Your task to perform on an android device: toggle data saver in the chrome app Image 0: 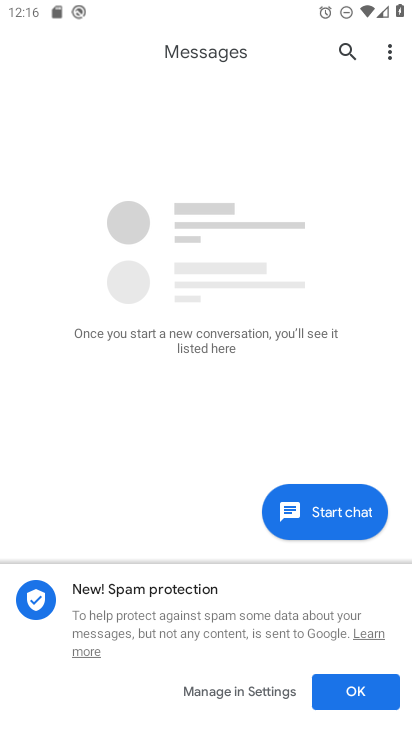
Step 0: press home button
Your task to perform on an android device: toggle data saver in the chrome app Image 1: 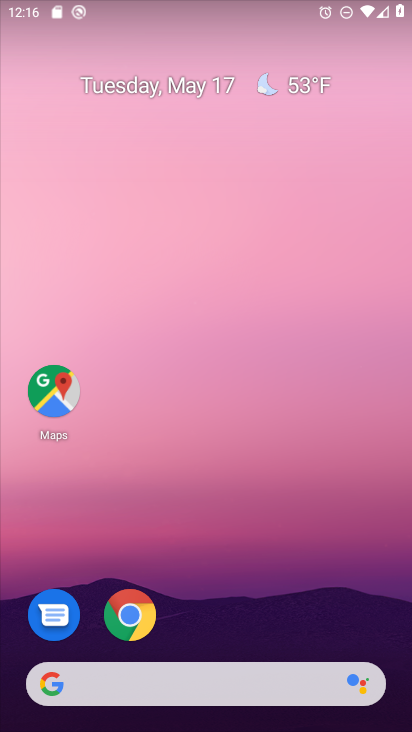
Step 1: click (134, 597)
Your task to perform on an android device: toggle data saver in the chrome app Image 2: 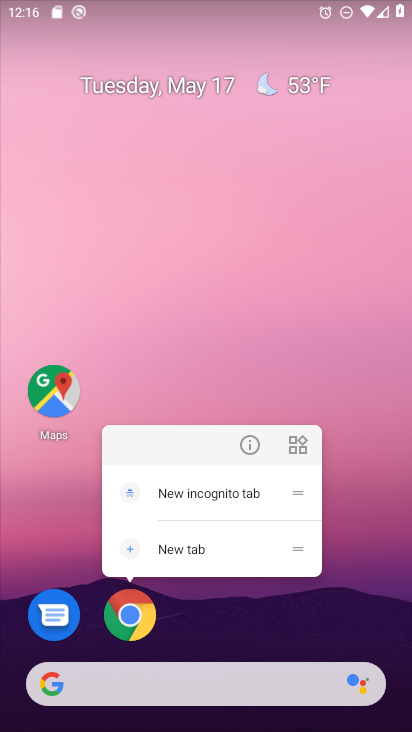
Step 2: click (127, 609)
Your task to perform on an android device: toggle data saver in the chrome app Image 3: 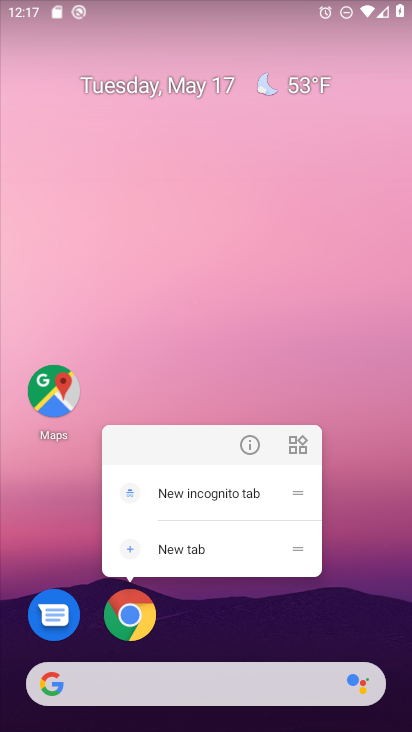
Step 3: click (125, 617)
Your task to perform on an android device: toggle data saver in the chrome app Image 4: 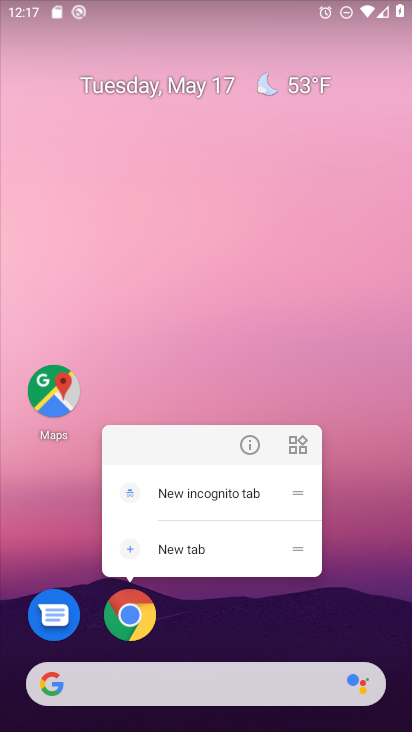
Step 4: click (128, 616)
Your task to perform on an android device: toggle data saver in the chrome app Image 5: 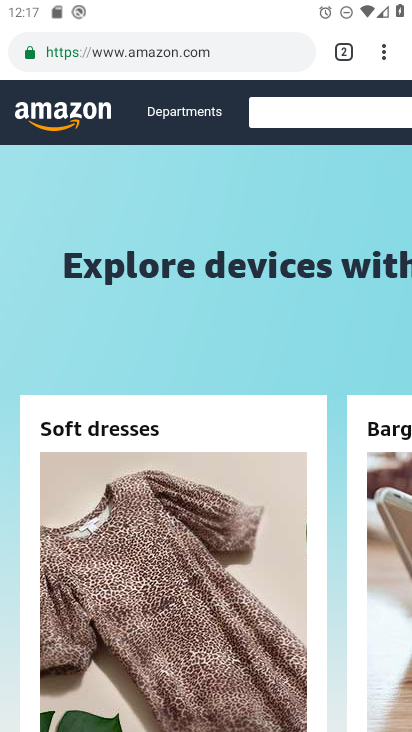
Step 5: click (384, 50)
Your task to perform on an android device: toggle data saver in the chrome app Image 6: 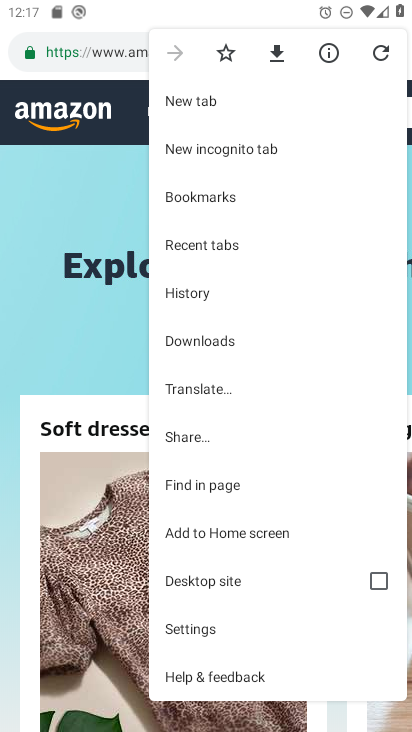
Step 6: click (180, 608)
Your task to perform on an android device: toggle data saver in the chrome app Image 7: 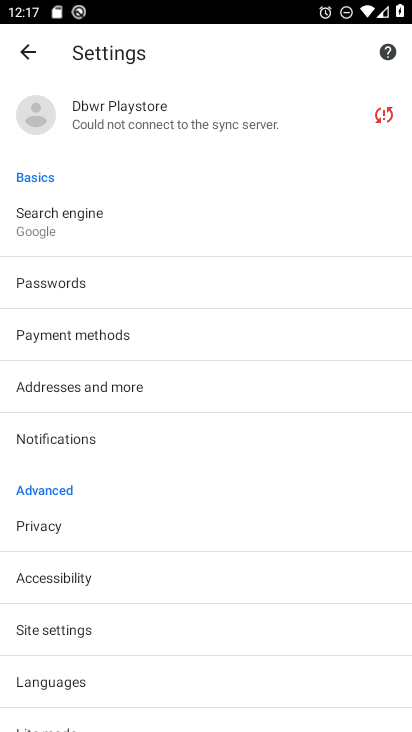
Step 7: drag from (118, 701) to (238, 313)
Your task to perform on an android device: toggle data saver in the chrome app Image 8: 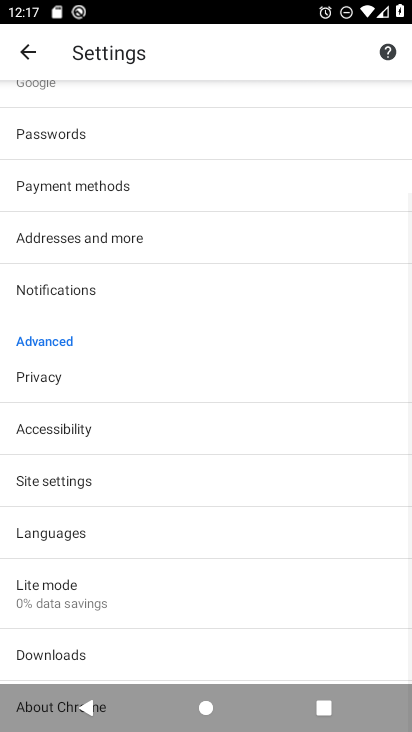
Step 8: click (72, 643)
Your task to perform on an android device: toggle data saver in the chrome app Image 9: 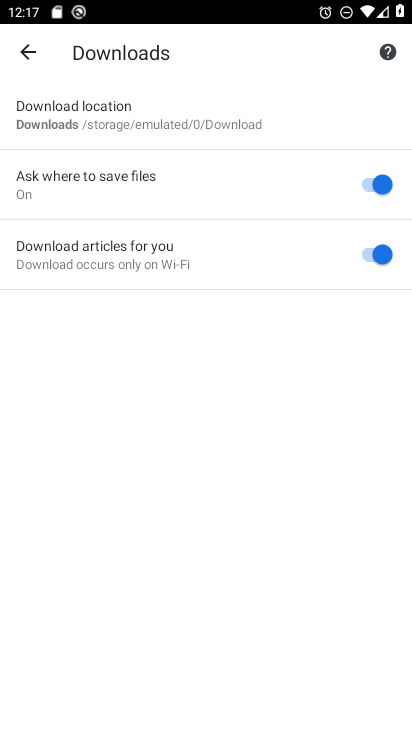
Step 9: click (29, 47)
Your task to perform on an android device: toggle data saver in the chrome app Image 10: 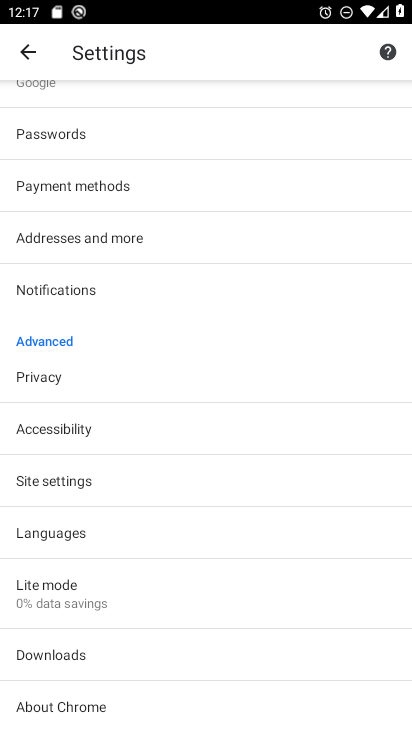
Step 10: click (52, 586)
Your task to perform on an android device: toggle data saver in the chrome app Image 11: 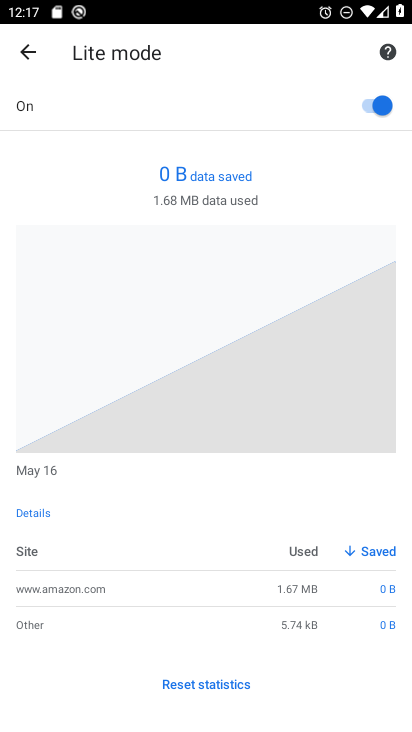
Step 11: click (372, 101)
Your task to perform on an android device: toggle data saver in the chrome app Image 12: 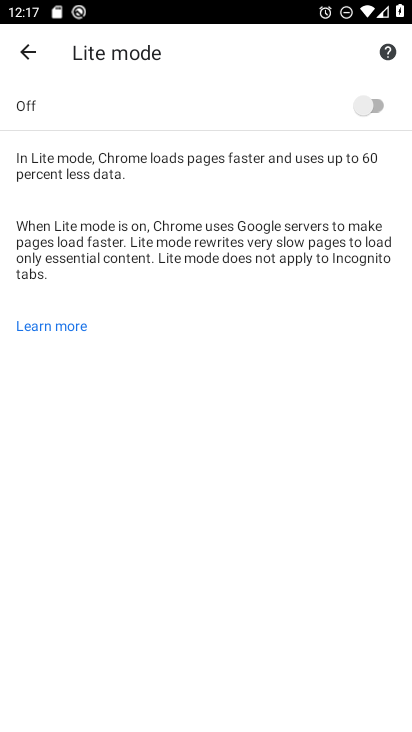
Step 12: task complete